Your task to perform on an android device: Go to Android settings Image 0: 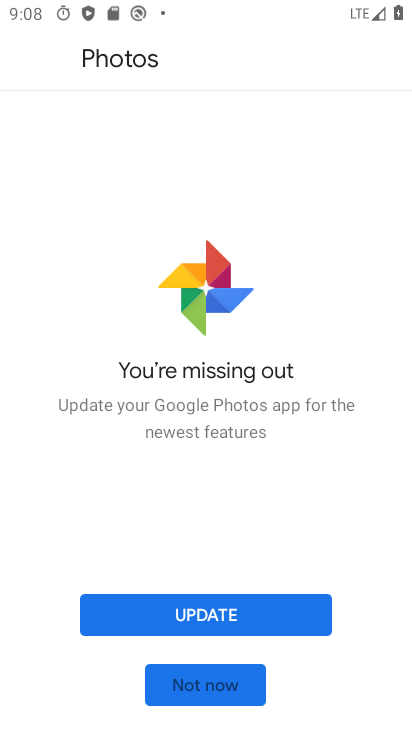
Step 0: press home button
Your task to perform on an android device: Go to Android settings Image 1: 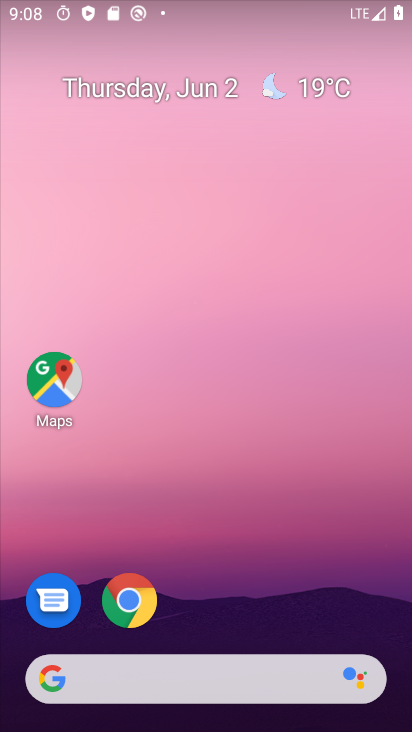
Step 1: drag from (230, 631) to (235, 125)
Your task to perform on an android device: Go to Android settings Image 2: 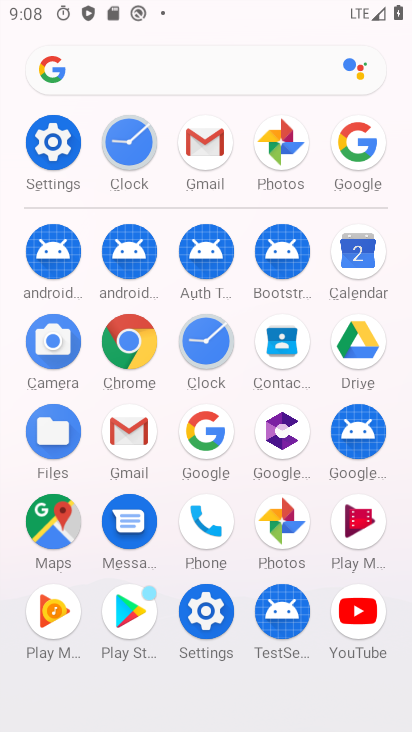
Step 2: click (52, 153)
Your task to perform on an android device: Go to Android settings Image 3: 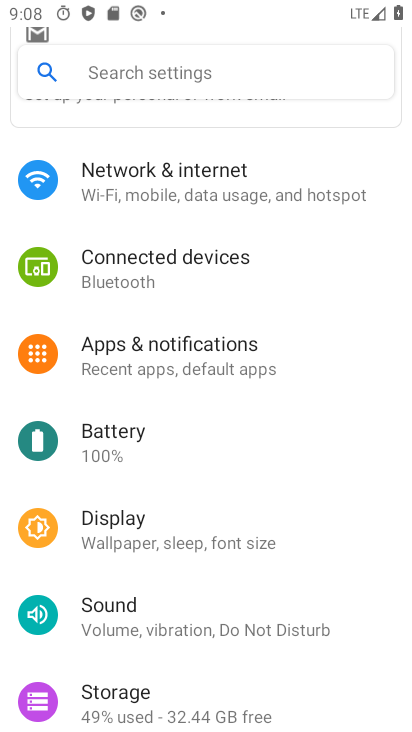
Step 3: task complete